Your task to perform on an android device: turn off wifi Image 0: 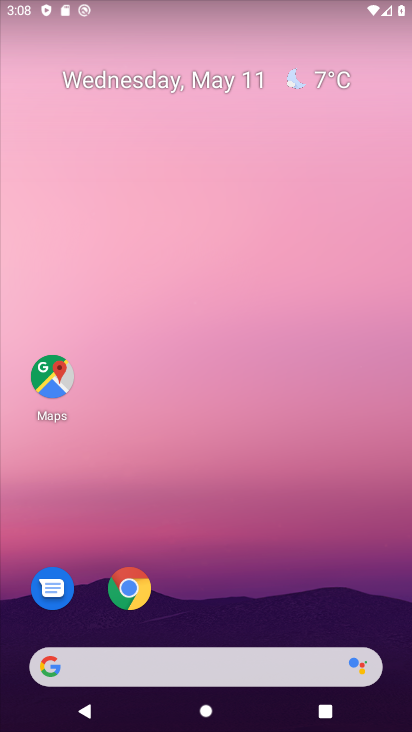
Step 0: drag from (222, 722) to (227, 72)
Your task to perform on an android device: turn off wifi Image 1: 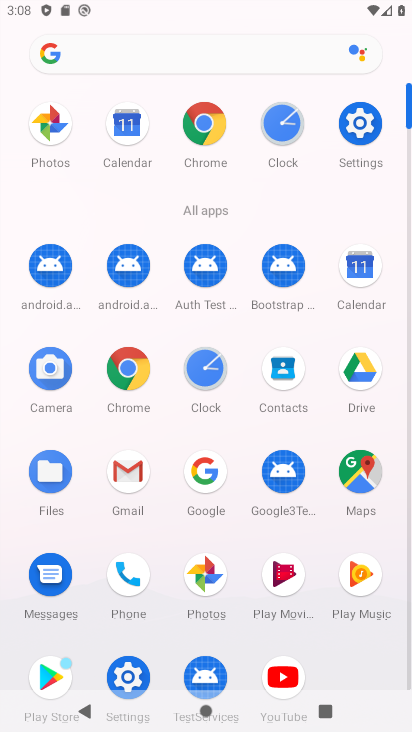
Step 1: click (355, 125)
Your task to perform on an android device: turn off wifi Image 2: 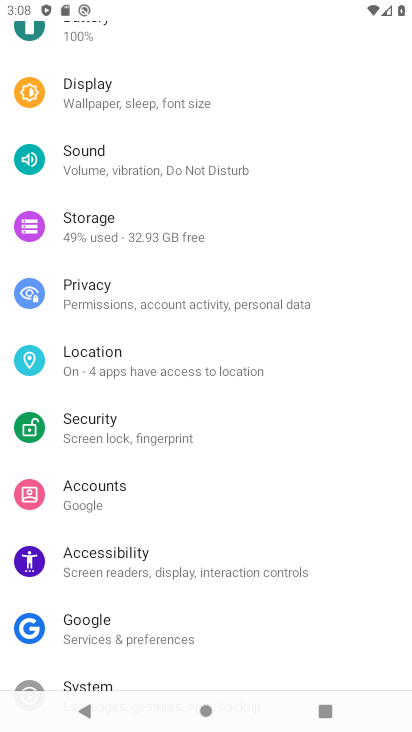
Step 2: drag from (167, 211) to (171, 655)
Your task to perform on an android device: turn off wifi Image 3: 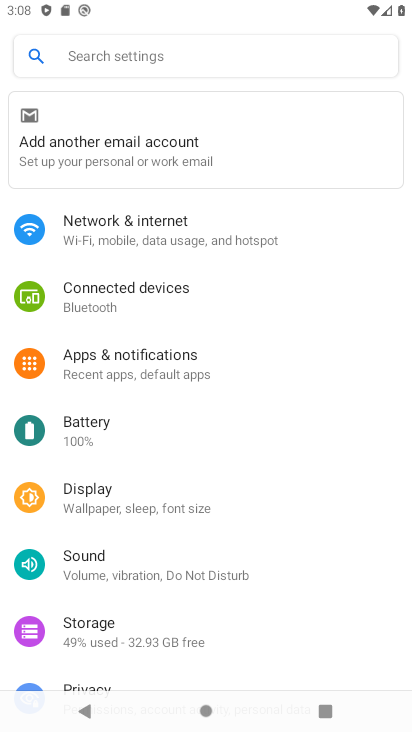
Step 3: click (114, 232)
Your task to perform on an android device: turn off wifi Image 4: 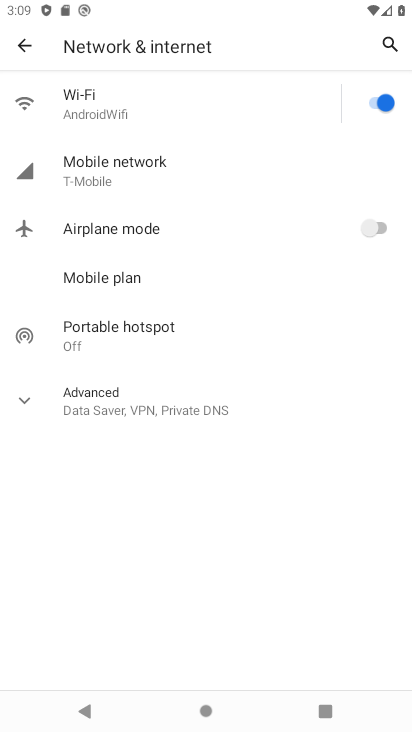
Step 4: click (372, 101)
Your task to perform on an android device: turn off wifi Image 5: 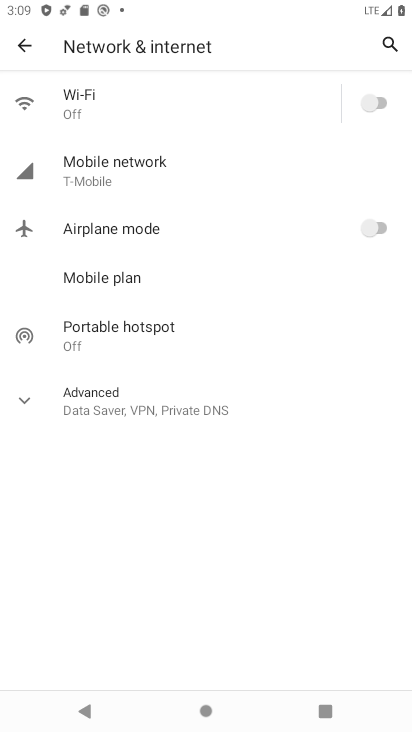
Step 5: task complete